Your task to perform on an android device: toggle improve location accuracy Image 0: 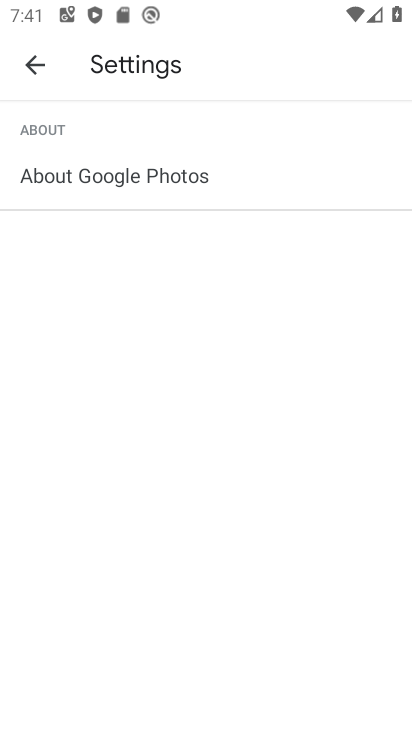
Step 0: press home button
Your task to perform on an android device: toggle improve location accuracy Image 1: 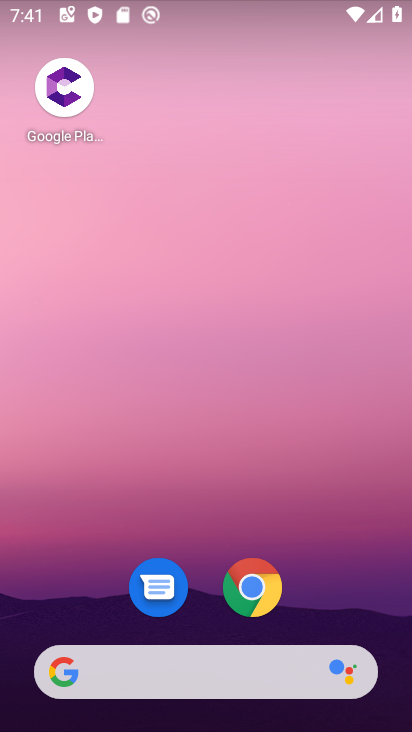
Step 1: drag from (338, 526) to (261, 144)
Your task to perform on an android device: toggle improve location accuracy Image 2: 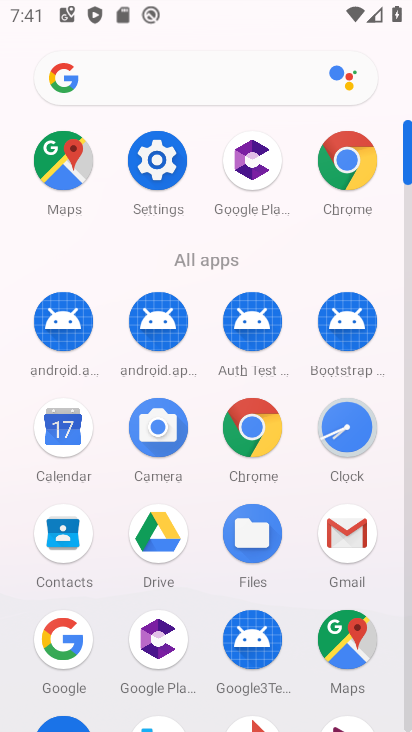
Step 2: click (157, 156)
Your task to perform on an android device: toggle improve location accuracy Image 3: 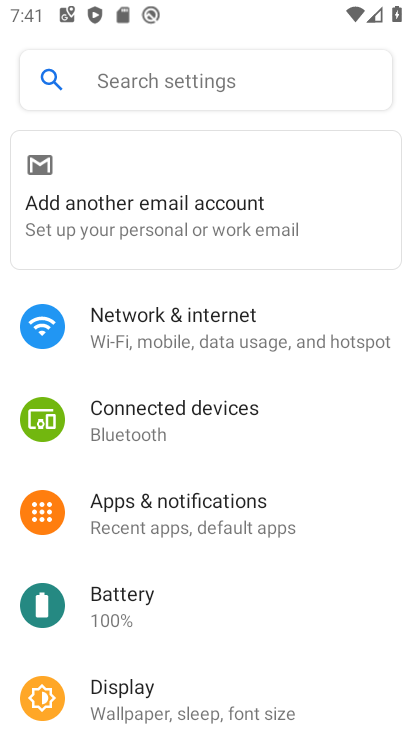
Step 3: drag from (203, 515) to (222, 180)
Your task to perform on an android device: toggle improve location accuracy Image 4: 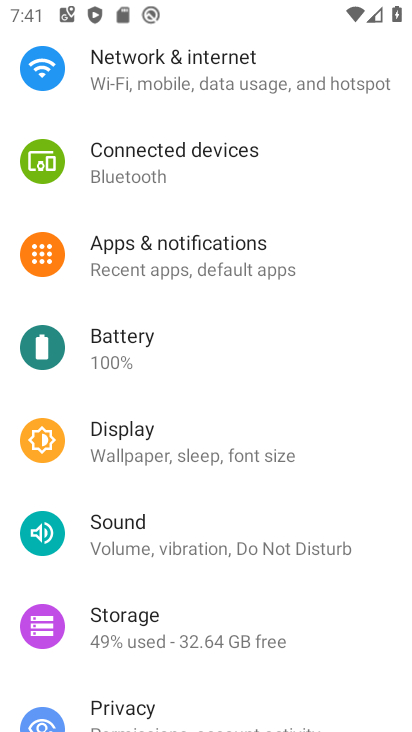
Step 4: drag from (200, 473) to (238, 25)
Your task to perform on an android device: toggle improve location accuracy Image 5: 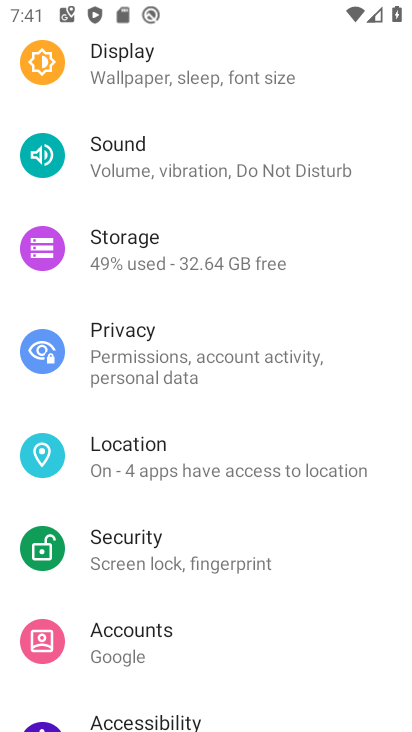
Step 5: drag from (173, 387) to (222, 219)
Your task to perform on an android device: toggle improve location accuracy Image 6: 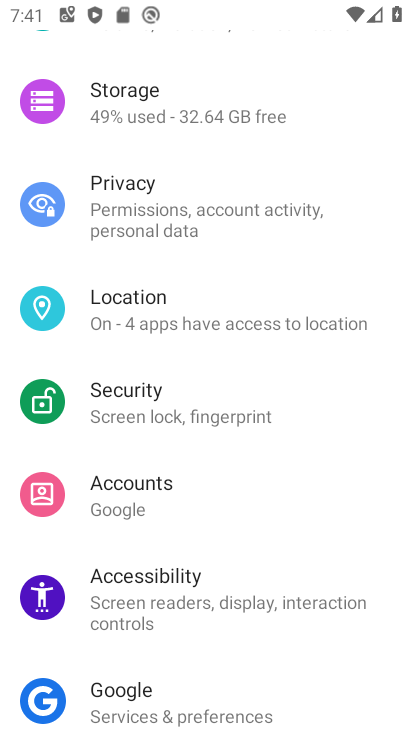
Step 6: click (161, 303)
Your task to perform on an android device: toggle improve location accuracy Image 7: 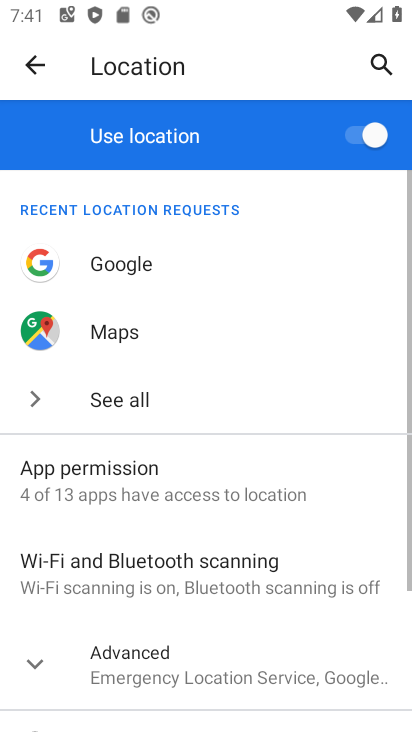
Step 7: drag from (204, 529) to (236, 268)
Your task to perform on an android device: toggle improve location accuracy Image 8: 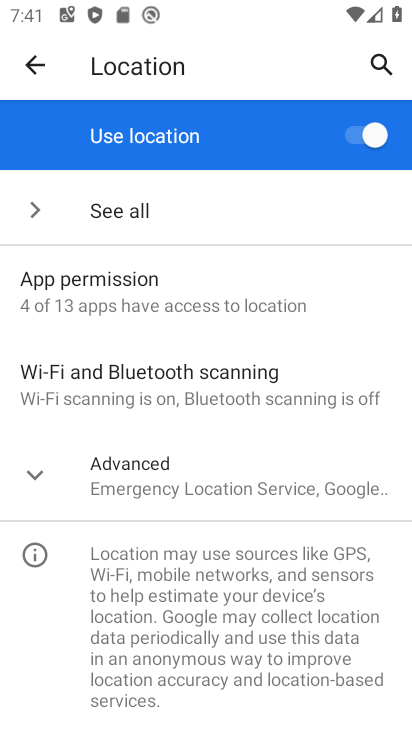
Step 8: click (133, 481)
Your task to perform on an android device: toggle improve location accuracy Image 9: 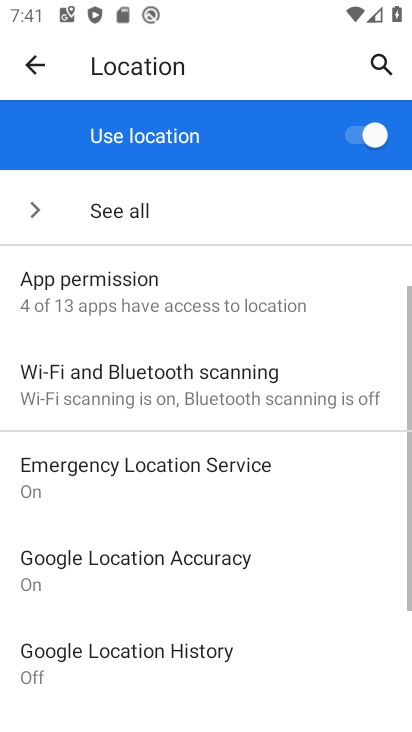
Step 9: drag from (185, 653) to (224, 453)
Your task to perform on an android device: toggle improve location accuracy Image 10: 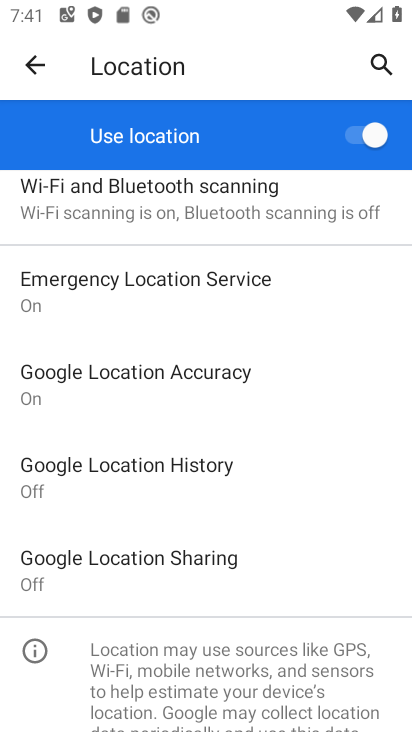
Step 10: click (192, 372)
Your task to perform on an android device: toggle improve location accuracy Image 11: 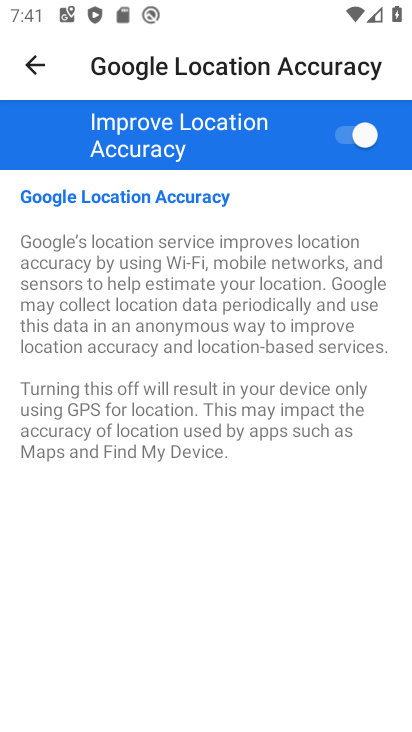
Step 11: click (362, 123)
Your task to perform on an android device: toggle improve location accuracy Image 12: 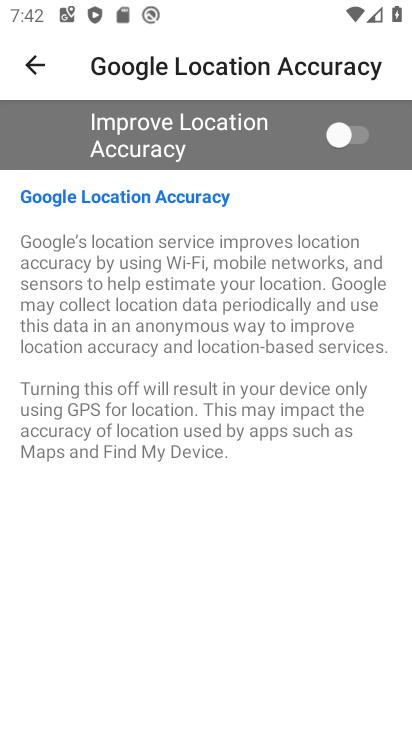
Step 12: task complete